Your task to perform on an android device: Open Google Image 0: 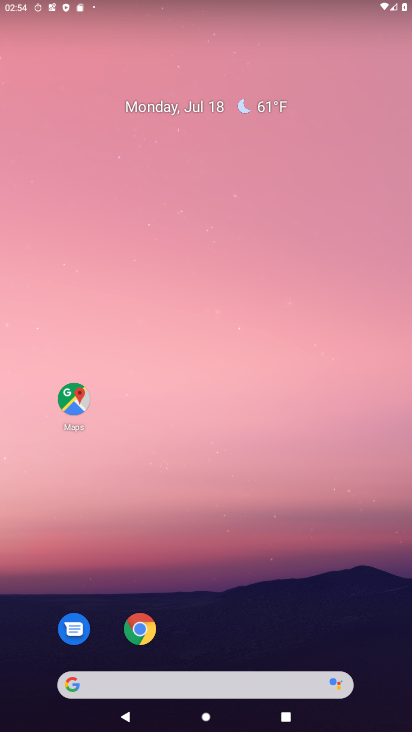
Step 0: drag from (199, 689) to (213, 169)
Your task to perform on an android device: Open Google Image 1: 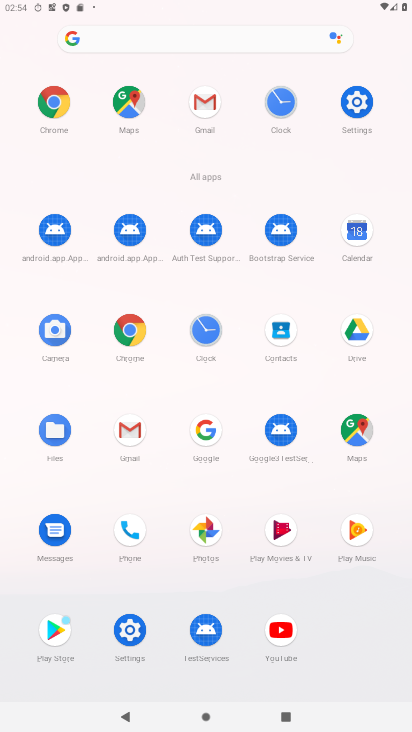
Step 1: click (206, 428)
Your task to perform on an android device: Open Google Image 2: 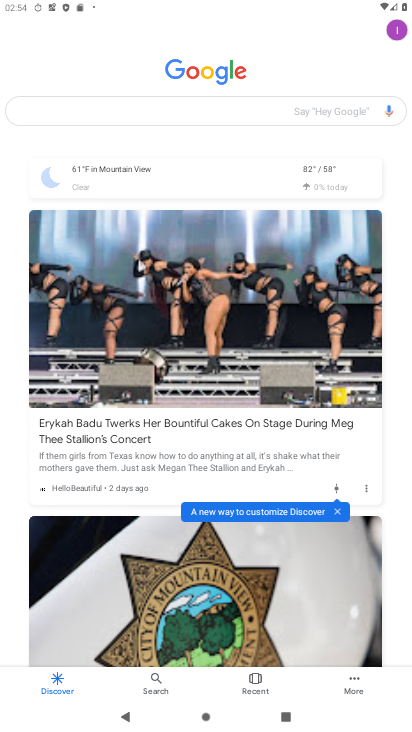
Step 2: task complete